Your task to perform on an android device: Find coffee shops on Maps Image 0: 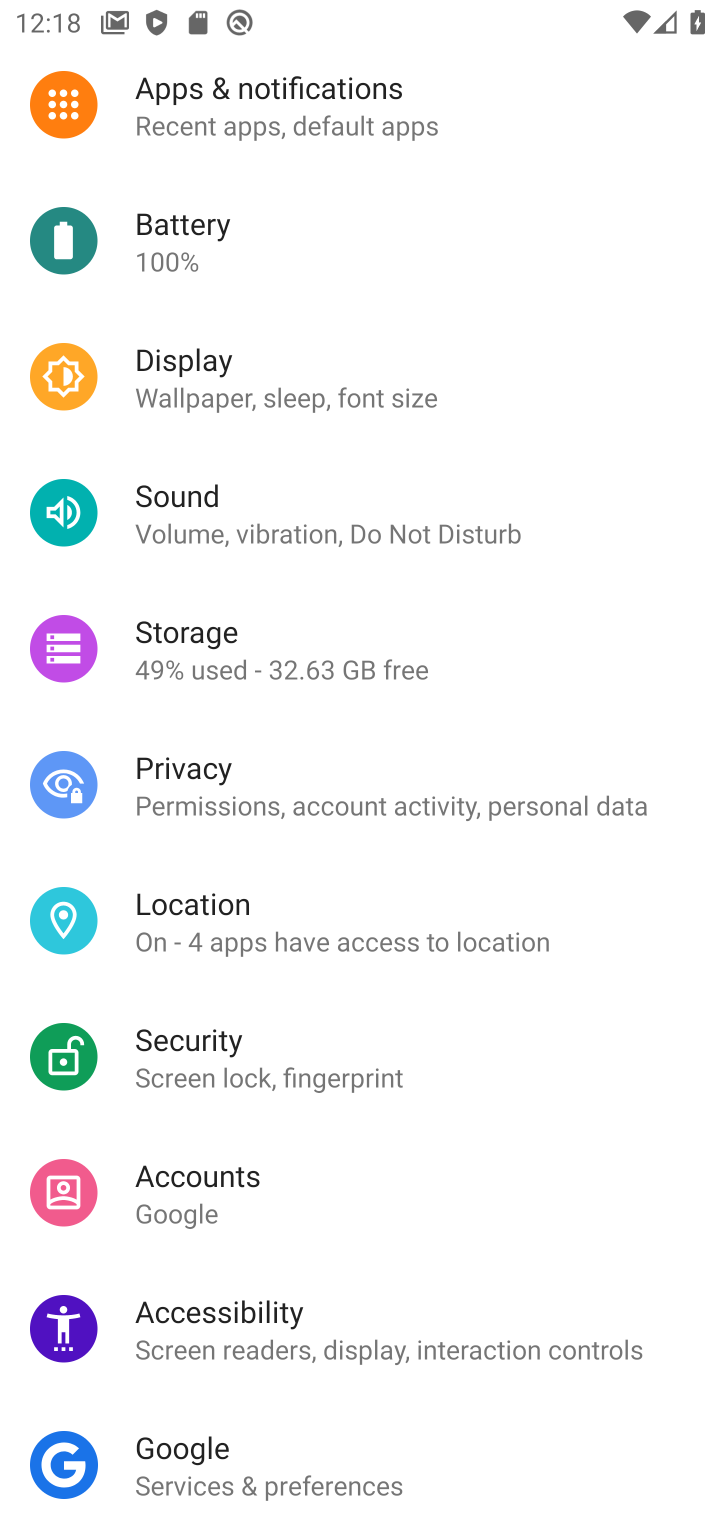
Step 0: press home button
Your task to perform on an android device: Find coffee shops on Maps Image 1: 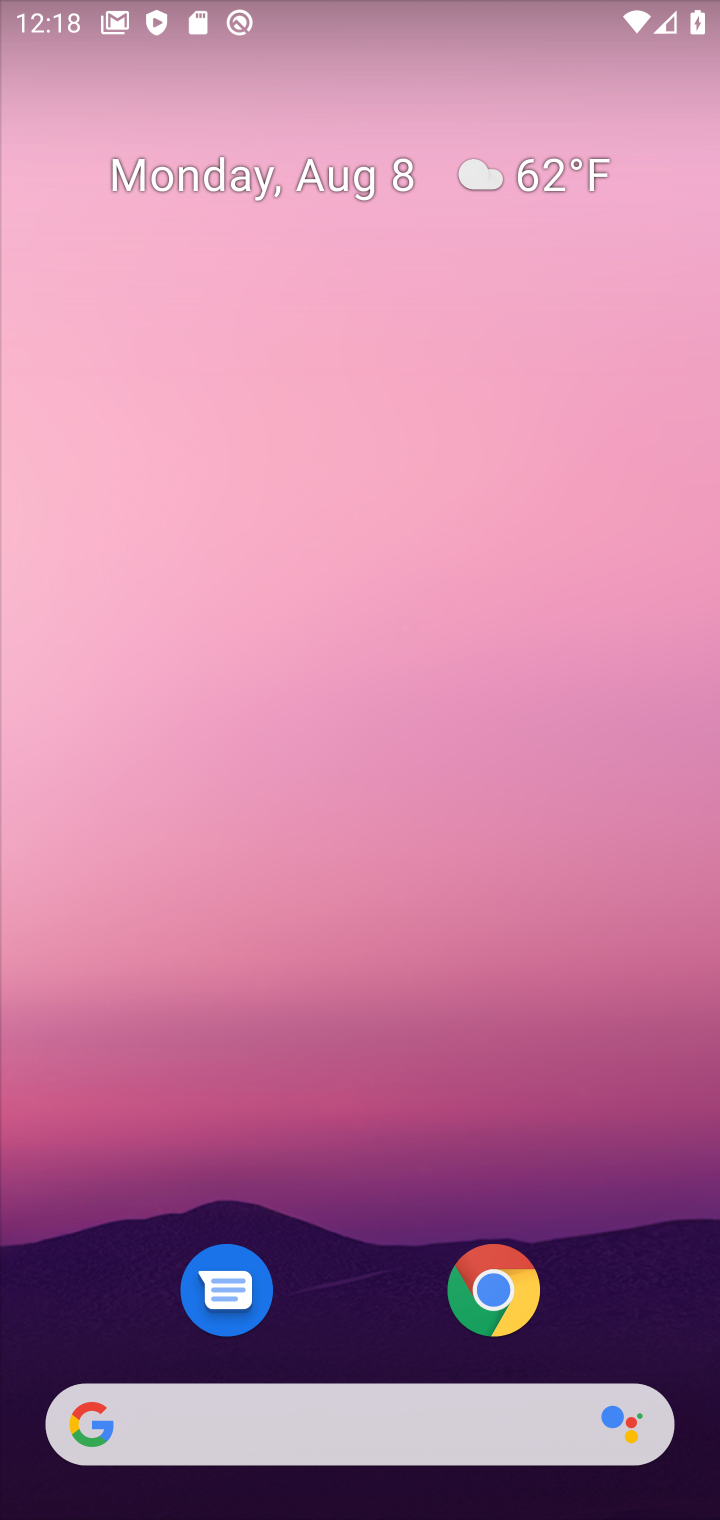
Step 1: drag from (340, 900) to (480, 16)
Your task to perform on an android device: Find coffee shops on Maps Image 2: 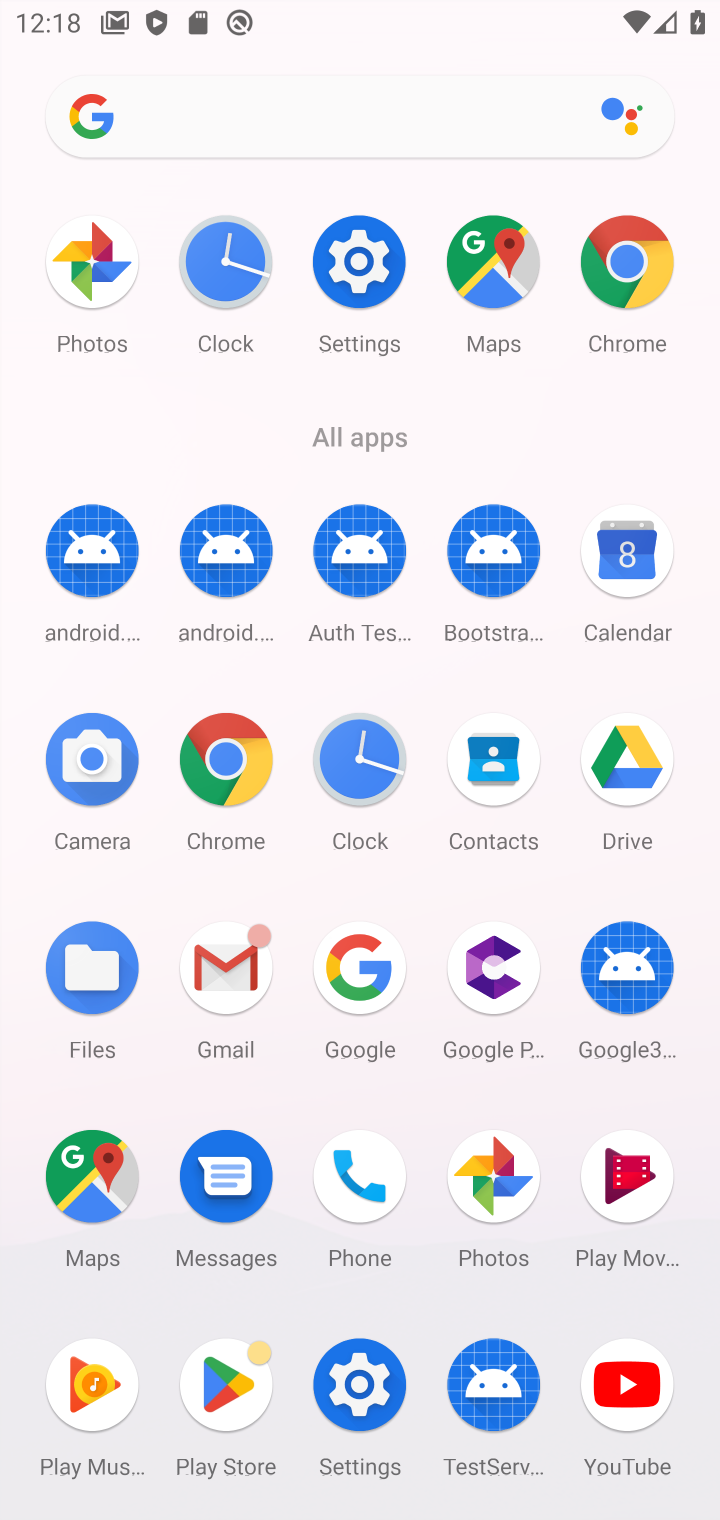
Step 2: click (504, 271)
Your task to perform on an android device: Find coffee shops on Maps Image 3: 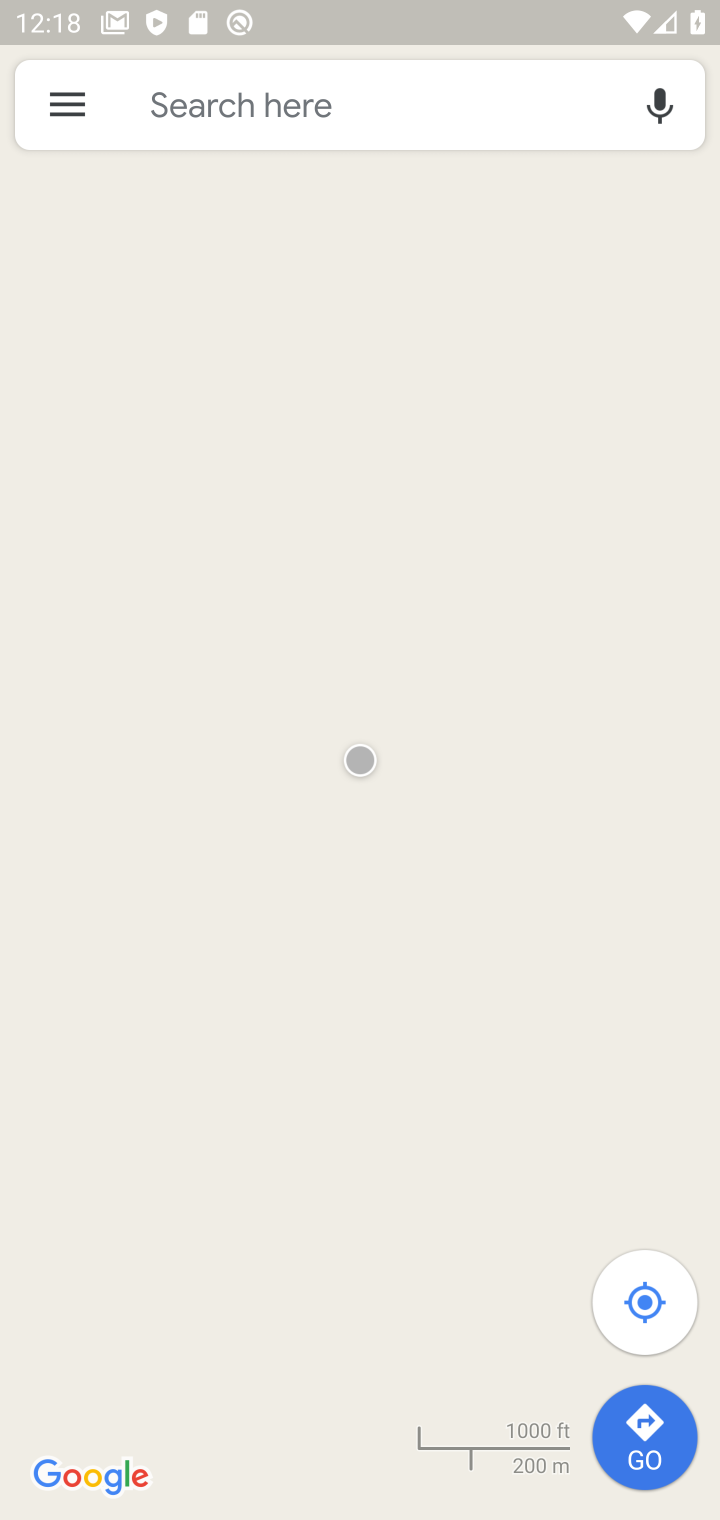
Step 3: click (295, 120)
Your task to perform on an android device: Find coffee shops on Maps Image 4: 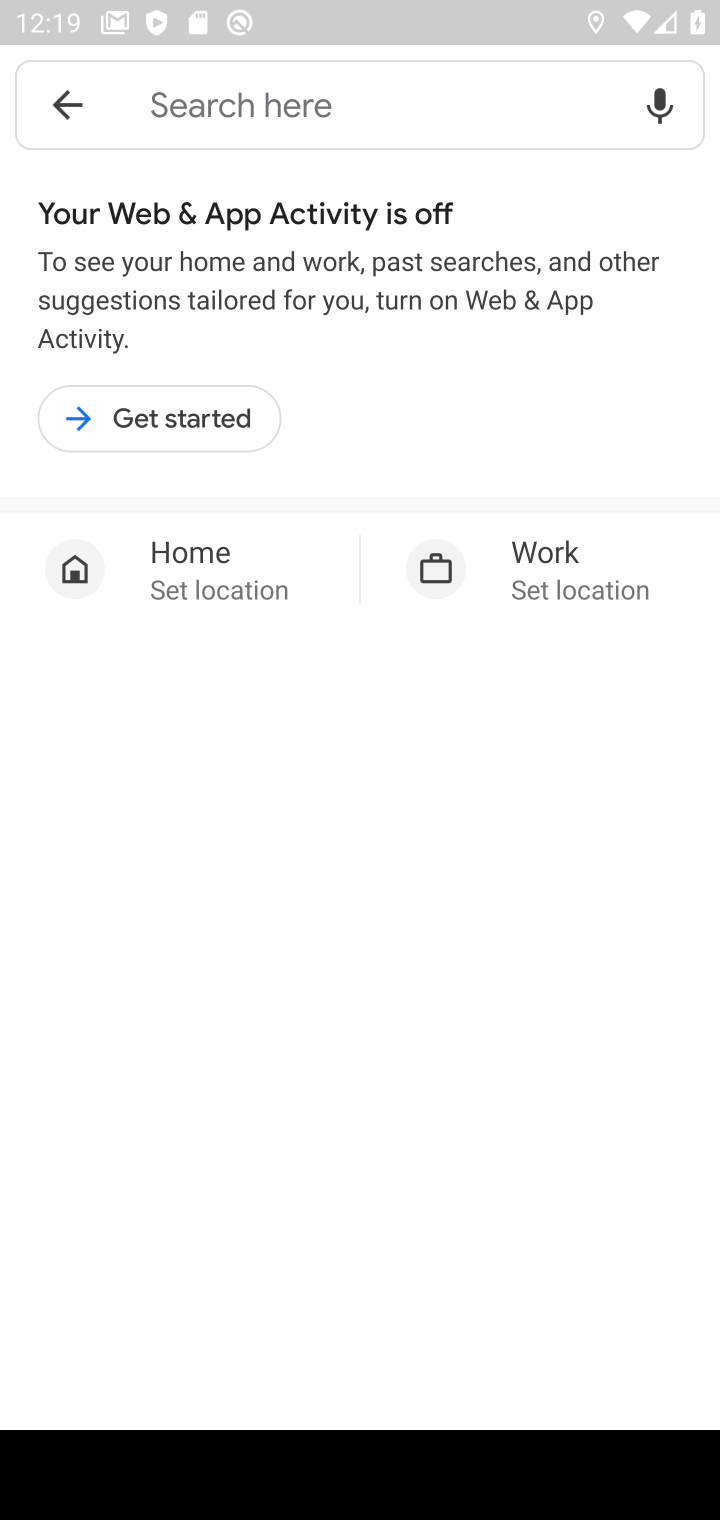
Step 4: type "coffee shops"
Your task to perform on an android device: Find coffee shops on Maps Image 5: 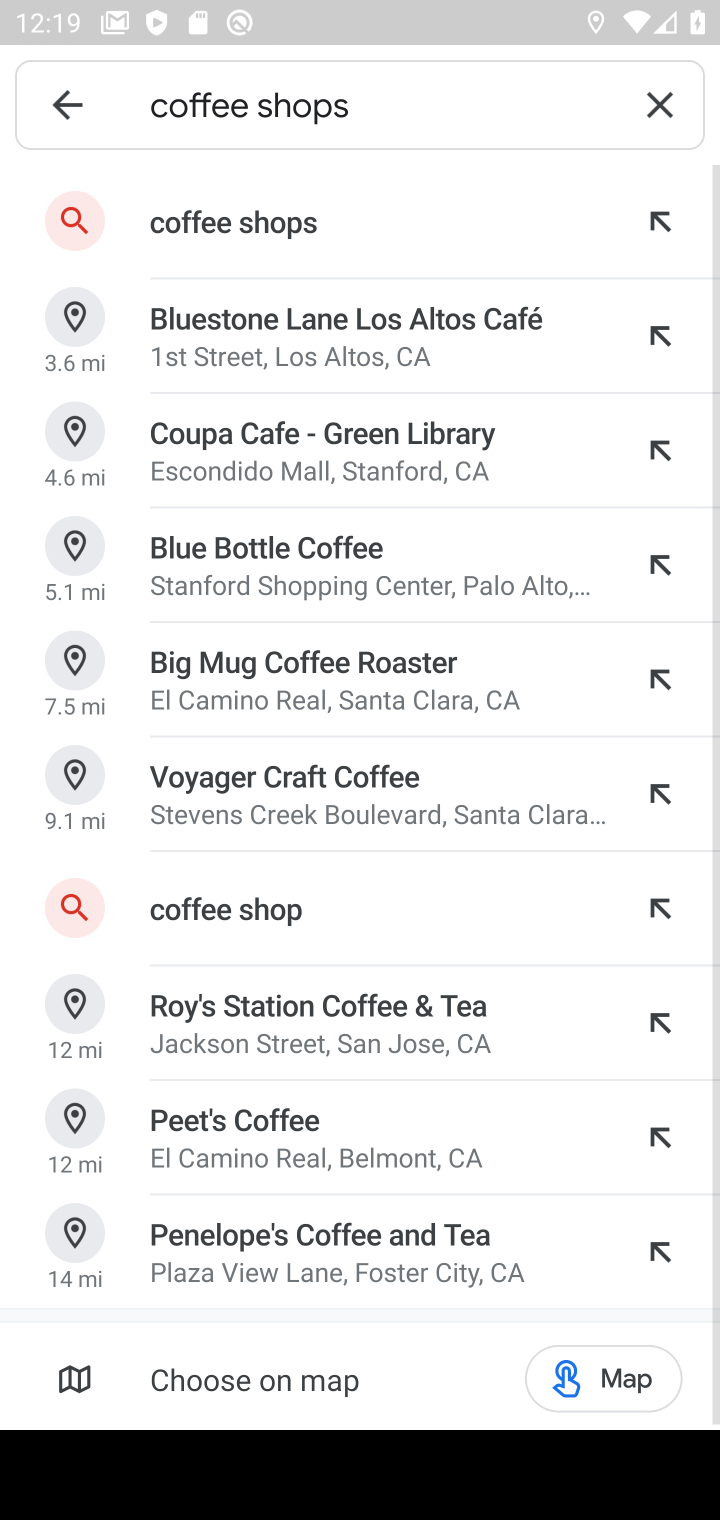
Step 5: click (337, 220)
Your task to perform on an android device: Find coffee shops on Maps Image 6: 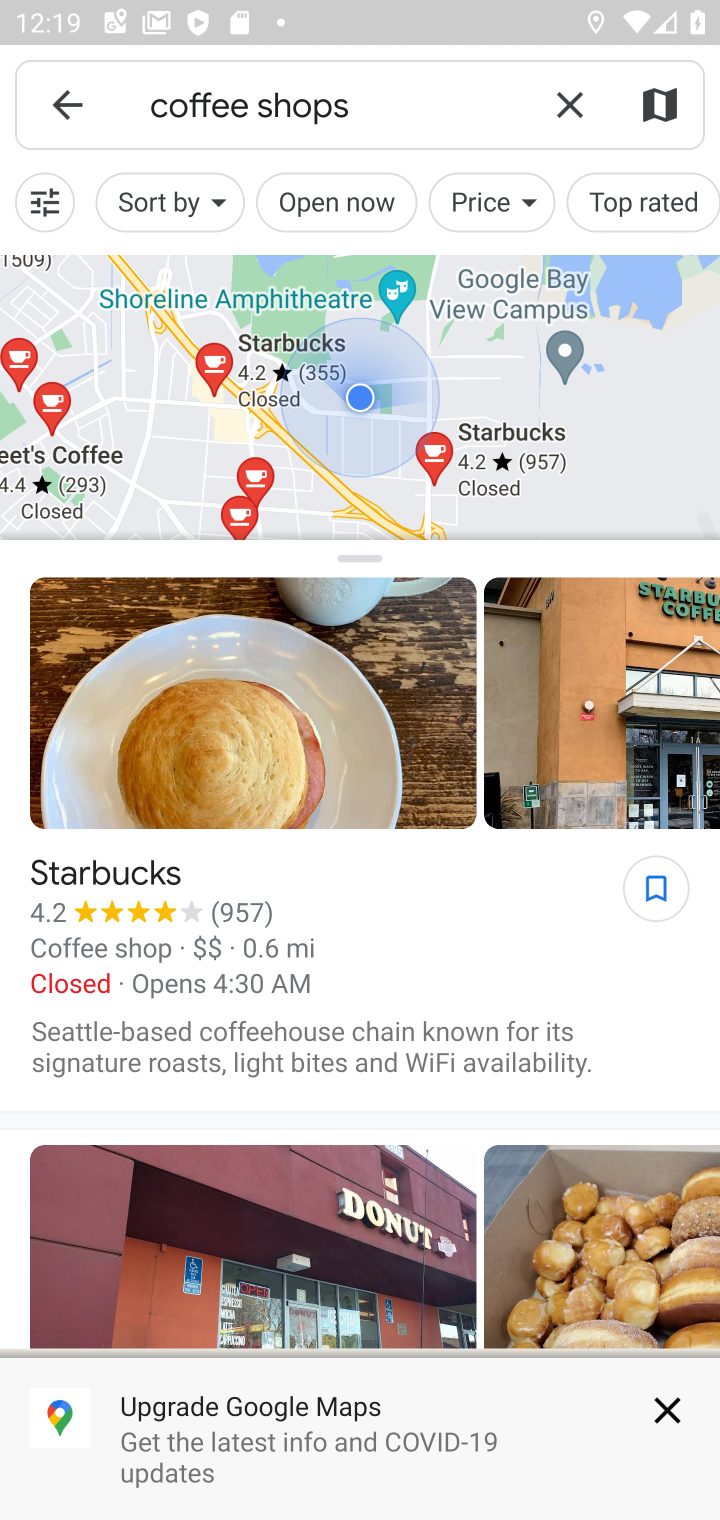
Step 6: task complete